Your task to perform on an android device: find snoozed emails in the gmail app Image 0: 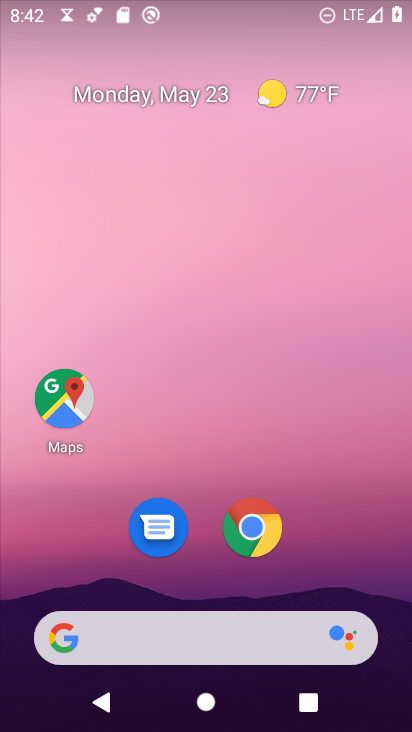
Step 0: press home button
Your task to perform on an android device: find snoozed emails in the gmail app Image 1: 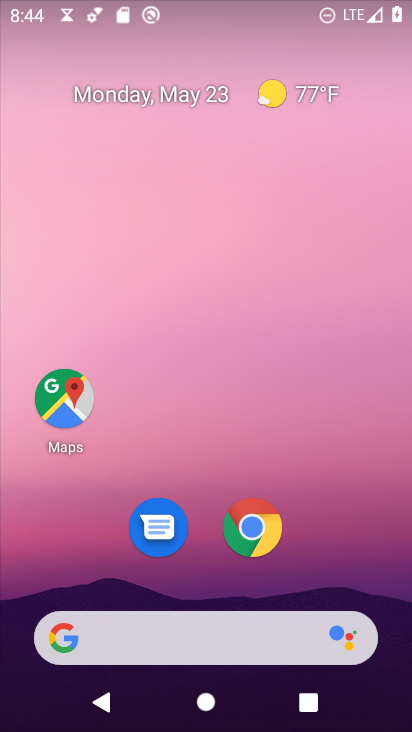
Step 1: drag from (261, 660) to (180, 157)
Your task to perform on an android device: find snoozed emails in the gmail app Image 2: 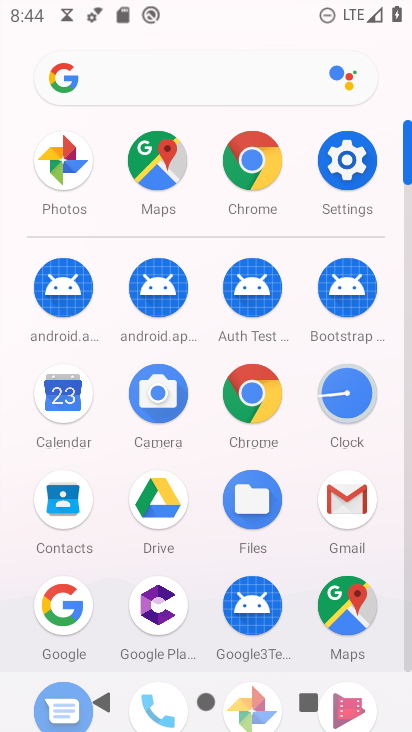
Step 2: click (358, 503)
Your task to perform on an android device: find snoozed emails in the gmail app Image 3: 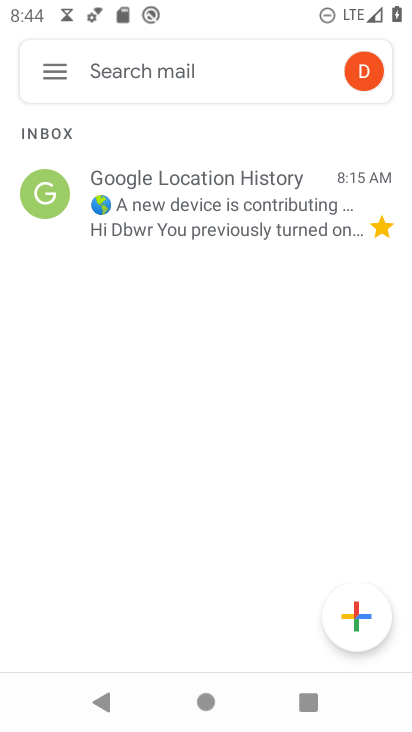
Step 3: click (44, 75)
Your task to perform on an android device: find snoozed emails in the gmail app Image 4: 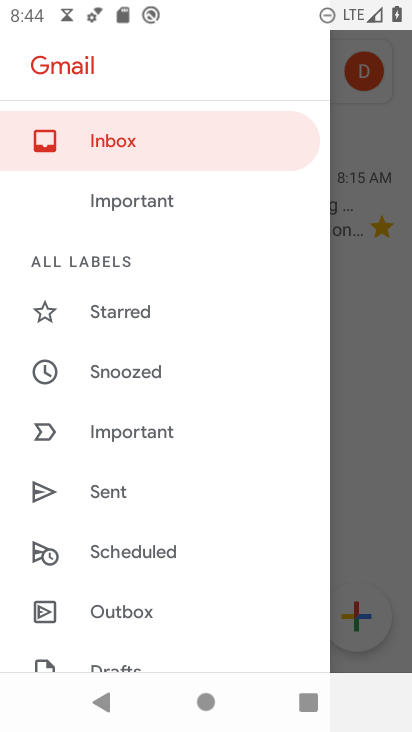
Step 4: click (144, 367)
Your task to perform on an android device: find snoozed emails in the gmail app Image 5: 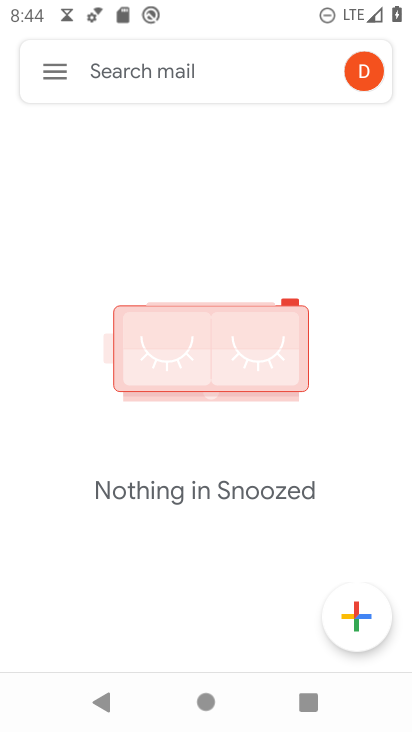
Step 5: task complete